Your task to perform on an android device: empty trash in google photos Image 0: 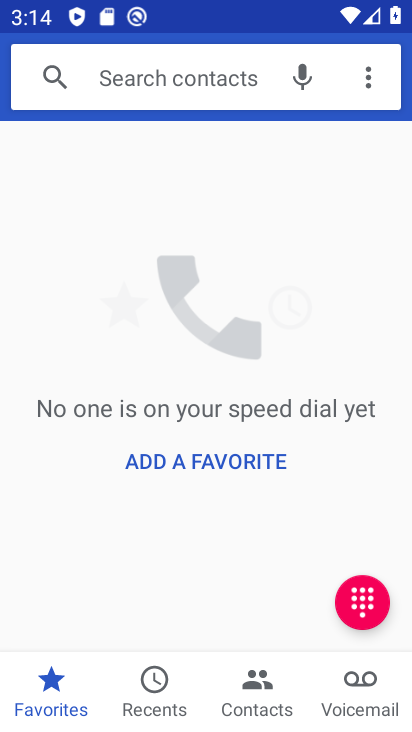
Step 0: press home button
Your task to perform on an android device: empty trash in google photos Image 1: 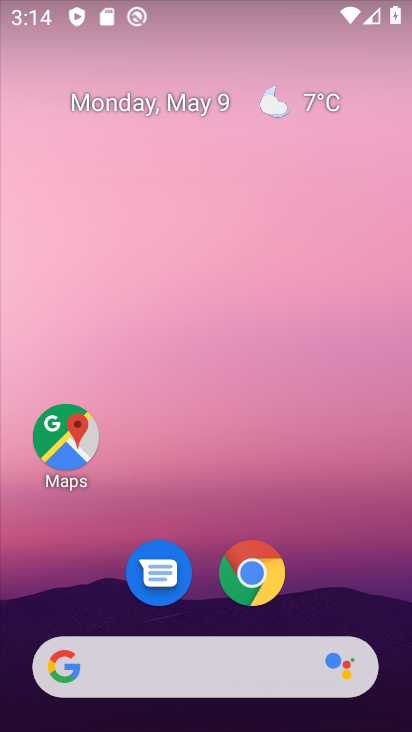
Step 1: drag from (221, 485) to (245, 244)
Your task to perform on an android device: empty trash in google photos Image 2: 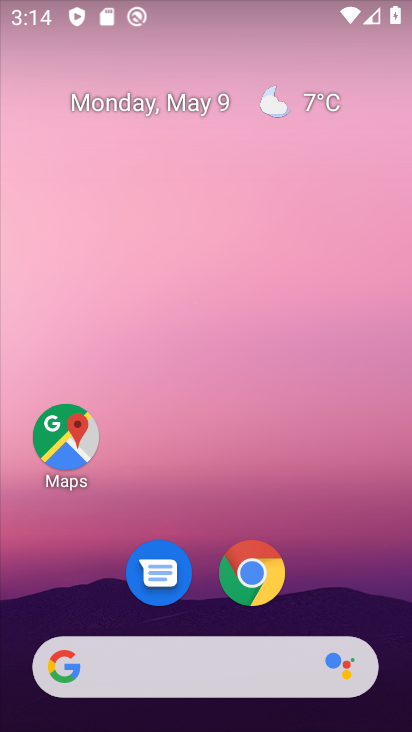
Step 2: drag from (313, 500) to (281, 197)
Your task to perform on an android device: empty trash in google photos Image 3: 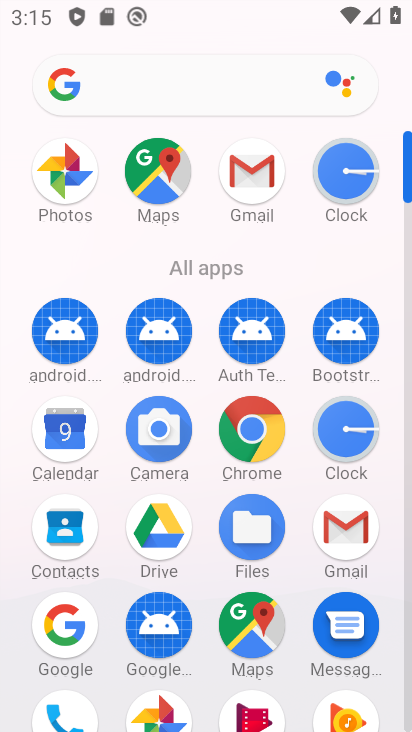
Step 3: drag from (201, 667) to (205, 352)
Your task to perform on an android device: empty trash in google photos Image 4: 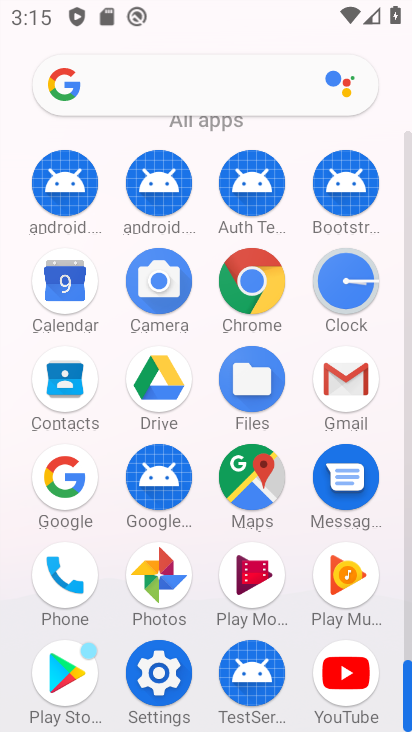
Step 4: click (159, 558)
Your task to perform on an android device: empty trash in google photos Image 5: 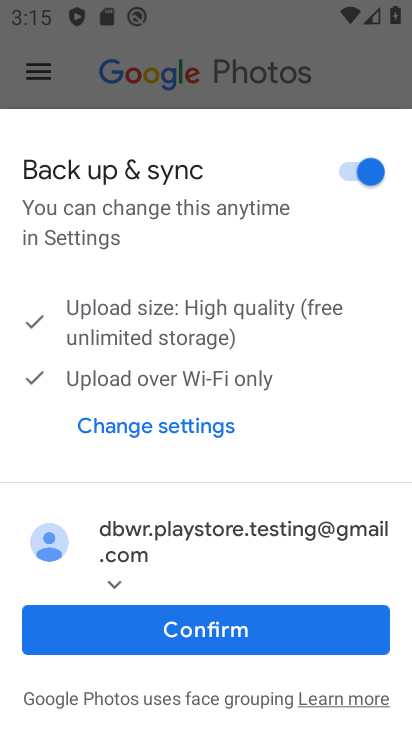
Step 5: click (185, 621)
Your task to perform on an android device: empty trash in google photos Image 6: 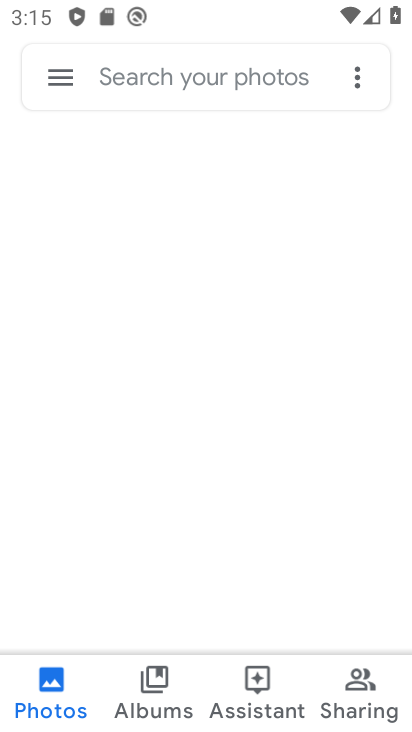
Step 6: click (35, 71)
Your task to perform on an android device: empty trash in google photos Image 7: 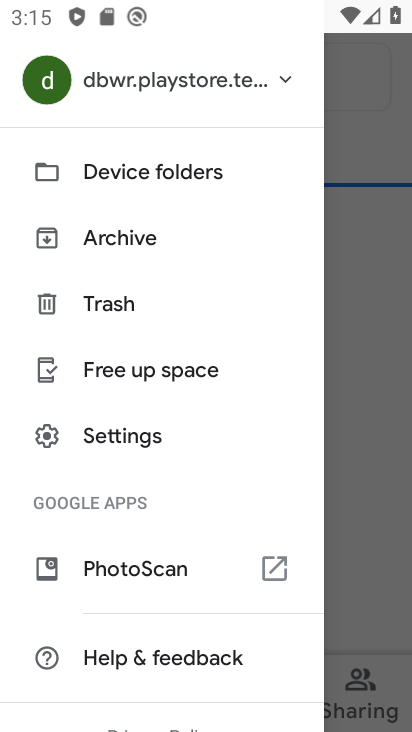
Step 7: click (111, 310)
Your task to perform on an android device: empty trash in google photos Image 8: 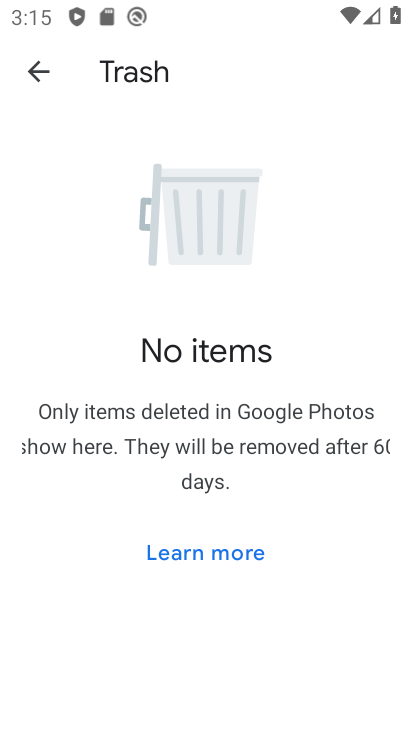
Step 8: task complete